Your task to perform on an android device: Go to Amazon Image 0: 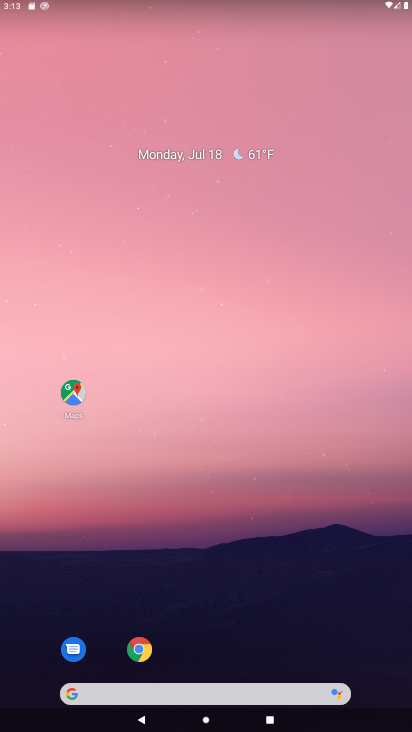
Step 0: click (141, 645)
Your task to perform on an android device: Go to Amazon Image 1: 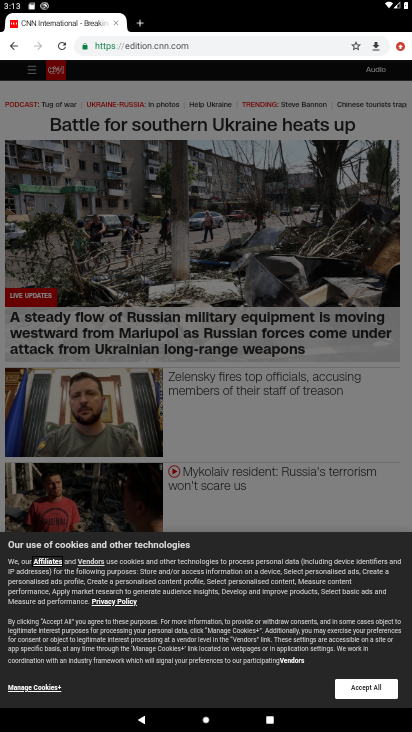
Step 1: click (241, 45)
Your task to perform on an android device: Go to Amazon Image 2: 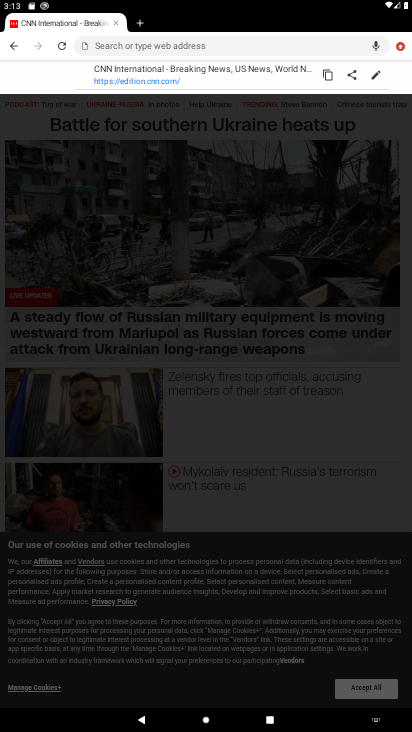
Step 2: type "amazon"
Your task to perform on an android device: Go to Amazon Image 3: 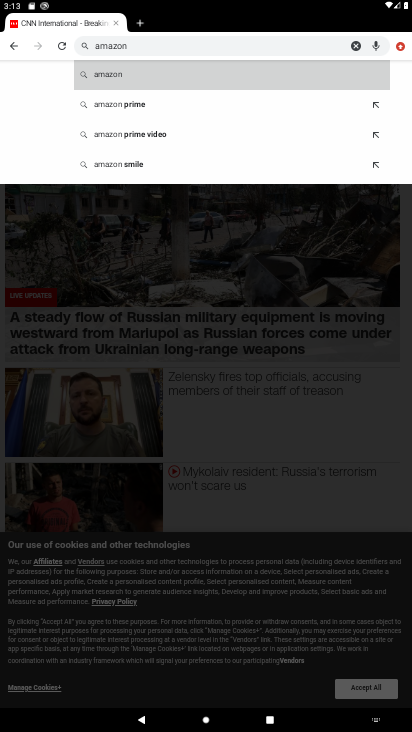
Step 3: click (147, 72)
Your task to perform on an android device: Go to Amazon Image 4: 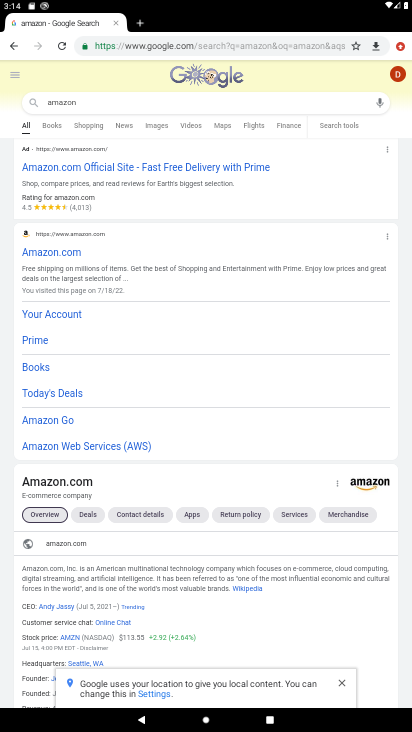
Step 4: click (90, 166)
Your task to perform on an android device: Go to Amazon Image 5: 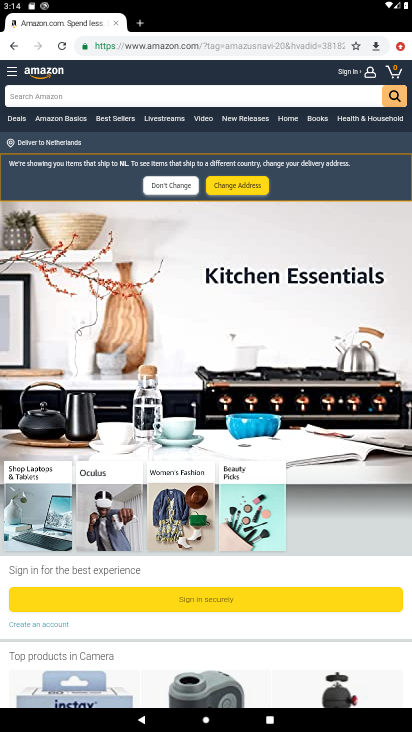
Step 5: task complete